Your task to perform on an android device: change text size in settings app Image 0: 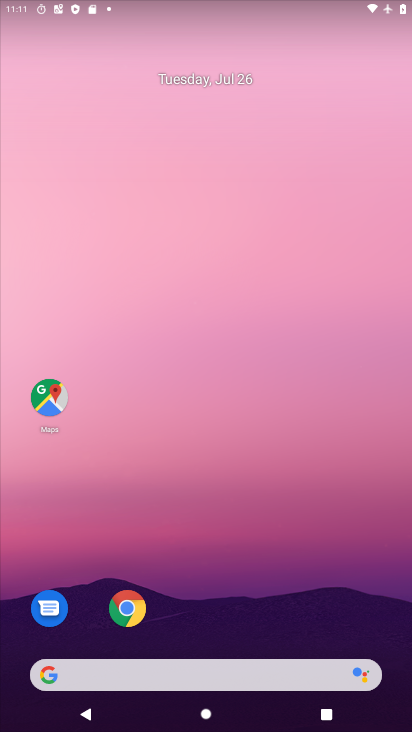
Step 0: click (286, 77)
Your task to perform on an android device: change text size in settings app Image 1: 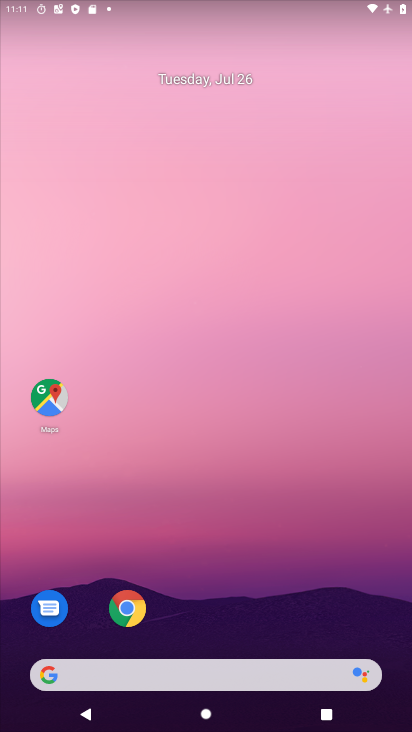
Step 1: drag from (229, 601) to (228, 2)
Your task to perform on an android device: change text size in settings app Image 2: 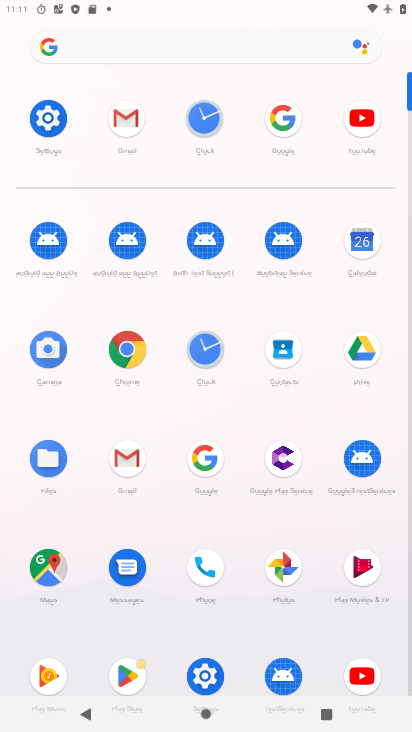
Step 2: click (45, 126)
Your task to perform on an android device: change text size in settings app Image 3: 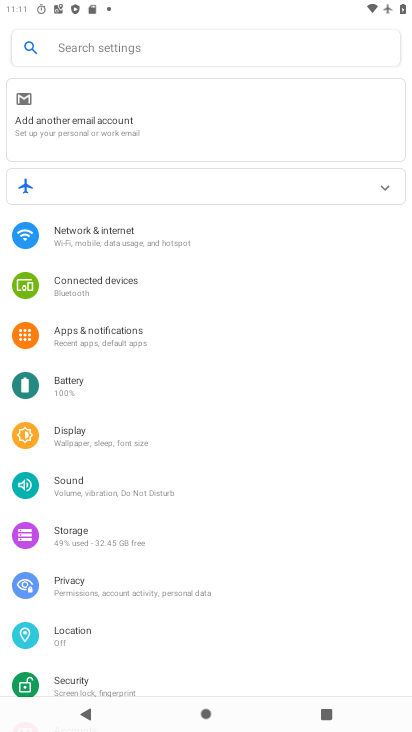
Step 3: click (92, 428)
Your task to perform on an android device: change text size in settings app Image 4: 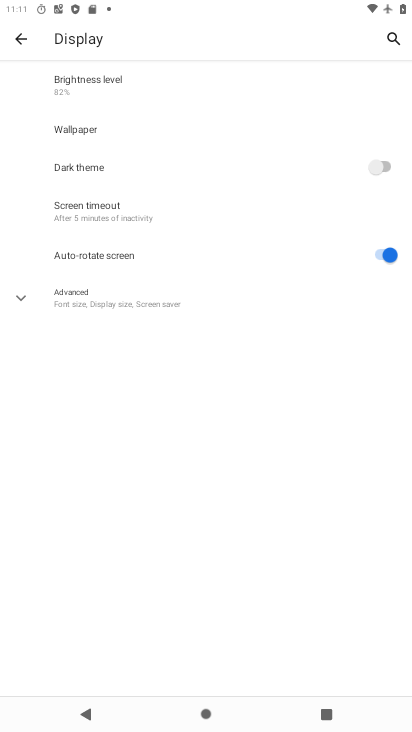
Step 4: click (127, 289)
Your task to perform on an android device: change text size in settings app Image 5: 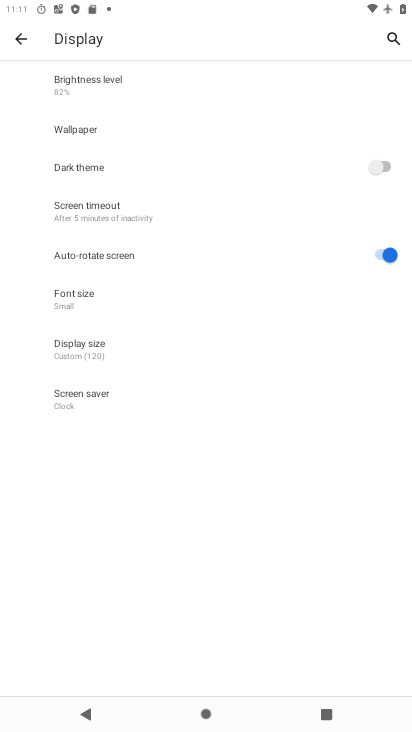
Step 5: click (120, 299)
Your task to perform on an android device: change text size in settings app Image 6: 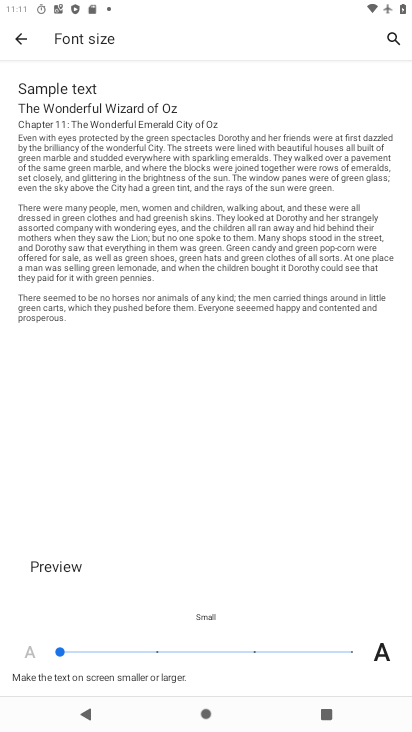
Step 6: click (344, 650)
Your task to perform on an android device: change text size in settings app Image 7: 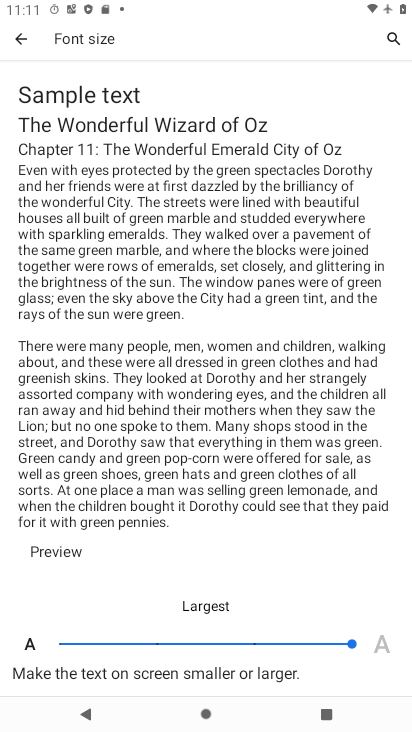
Step 7: task complete